Your task to perform on an android device: open the mobile data screen to see how much data has been used Image 0: 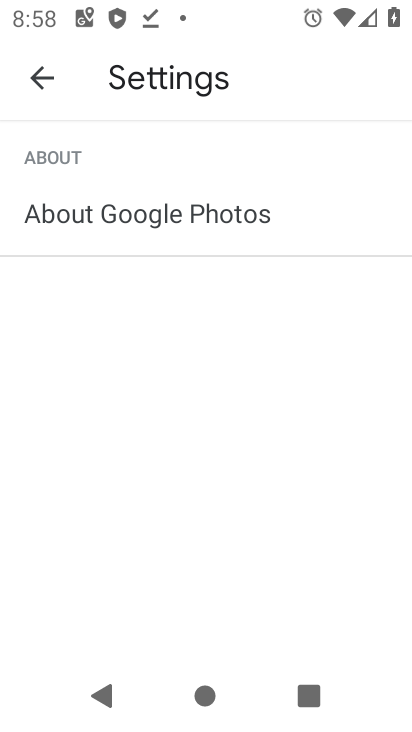
Step 0: drag from (295, 681) to (179, 229)
Your task to perform on an android device: open the mobile data screen to see how much data has been used Image 1: 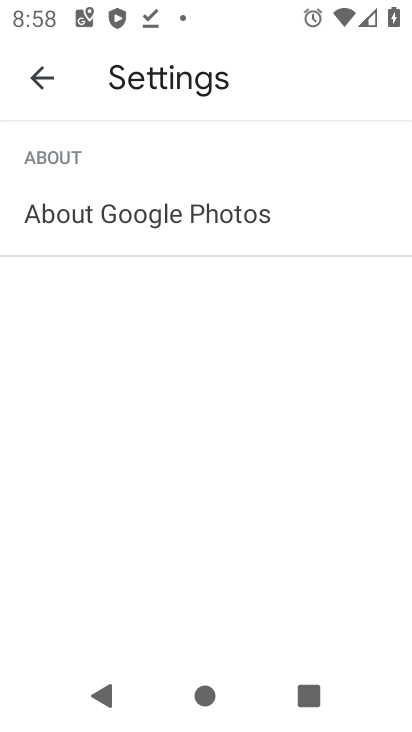
Step 1: click (33, 72)
Your task to perform on an android device: open the mobile data screen to see how much data has been used Image 2: 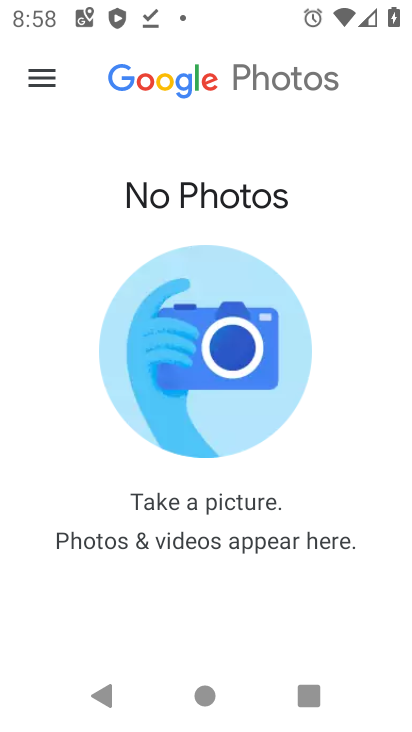
Step 2: press back button
Your task to perform on an android device: open the mobile data screen to see how much data has been used Image 3: 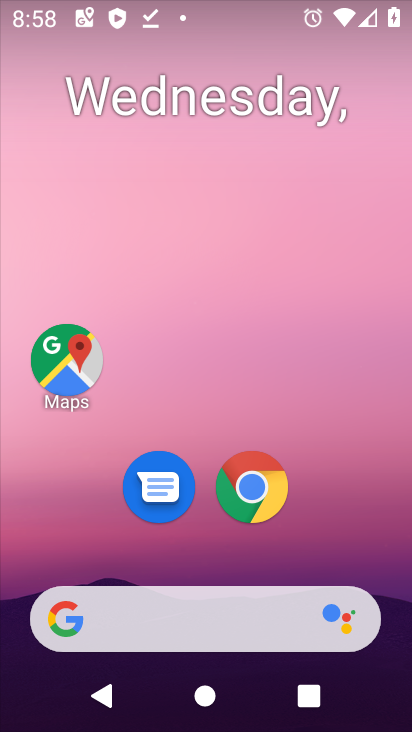
Step 3: drag from (266, 667) to (177, 298)
Your task to perform on an android device: open the mobile data screen to see how much data has been used Image 4: 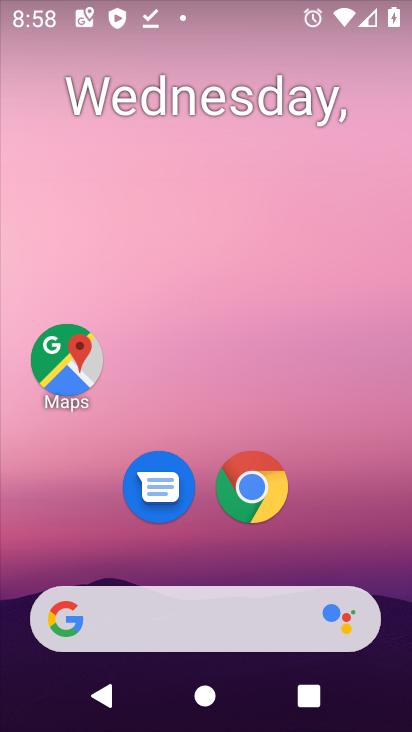
Step 4: drag from (265, 640) to (256, 329)
Your task to perform on an android device: open the mobile data screen to see how much data has been used Image 5: 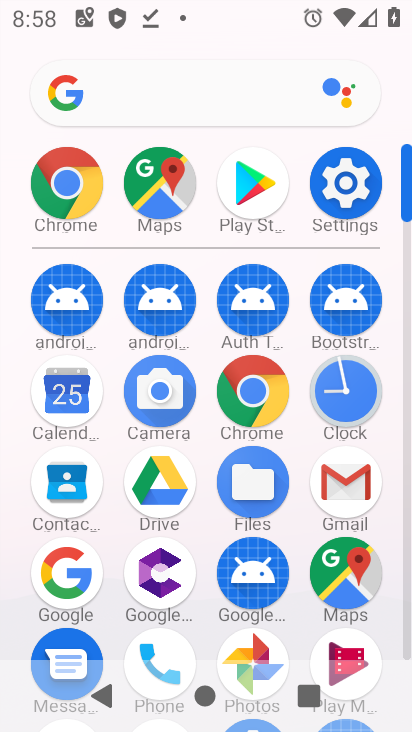
Step 5: click (314, 178)
Your task to perform on an android device: open the mobile data screen to see how much data has been used Image 6: 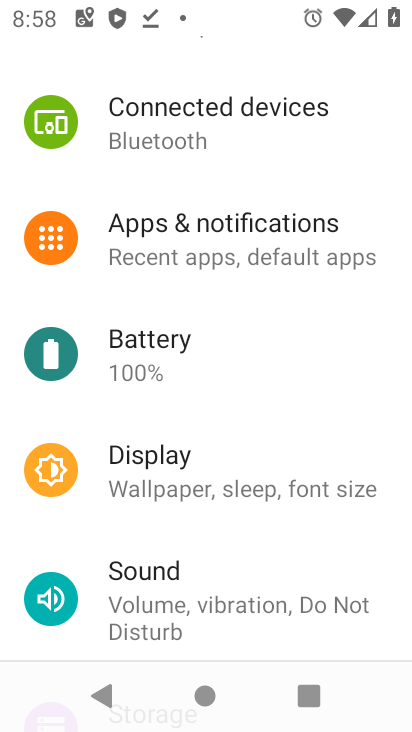
Step 6: drag from (194, 146) to (180, 607)
Your task to perform on an android device: open the mobile data screen to see how much data has been used Image 7: 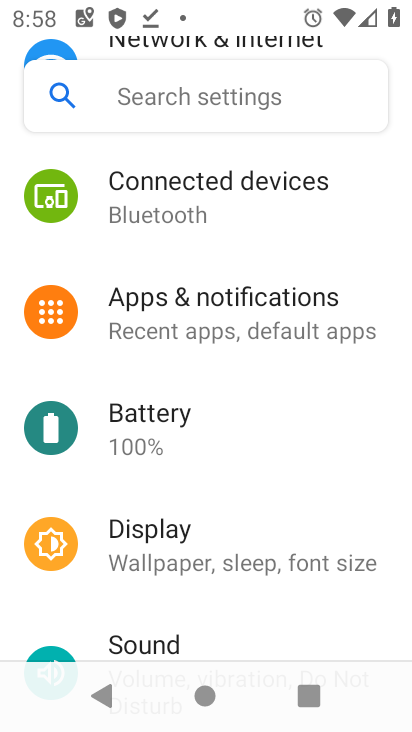
Step 7: drag from (214, 148) to (131, 650)
Your task to perform on an android device: open the mobile data screen to see how much data has been used Image 8: 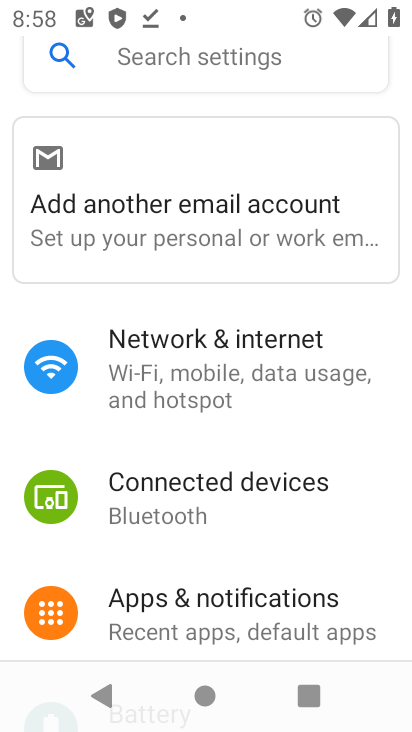
Step 8: click (173, 355)
Your task to perform on an android device: open the mobile data screen to see how much data has been used Image 9: 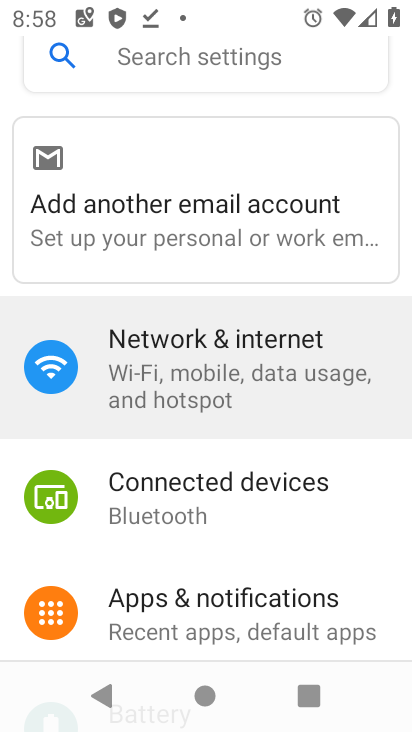
Step 9: click (178, 374)
Your task to perform on an android device: open the mobile data screen to see how much data has been used Image 10: 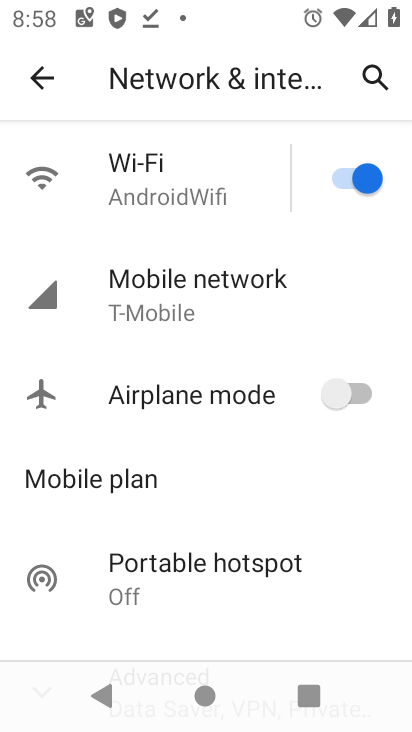
Step 10: click (169, 290)
Your task to perform on an android device: open the mobile data screen to see how much data has been used Image 11: 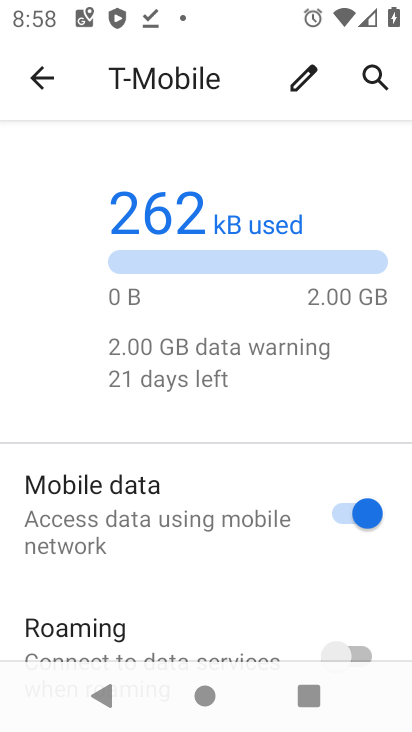
Step 11: task complete